Your task to perform on an android device: make emails show in primary in the gmail app Image 0: 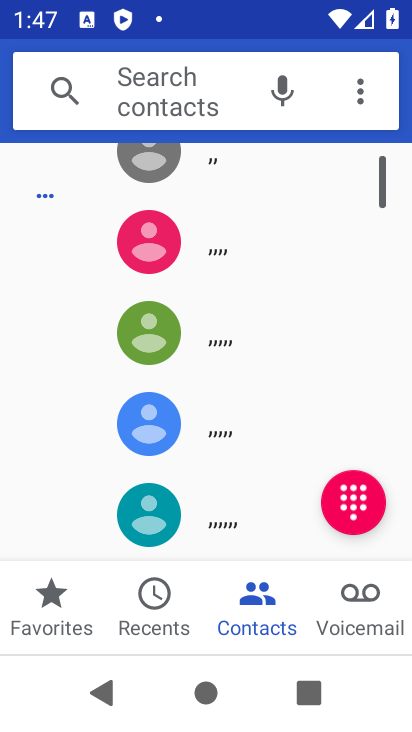
Step 0: press home button
Your task to perform on an android device: make emails show in primary in the gmail app Image 1: 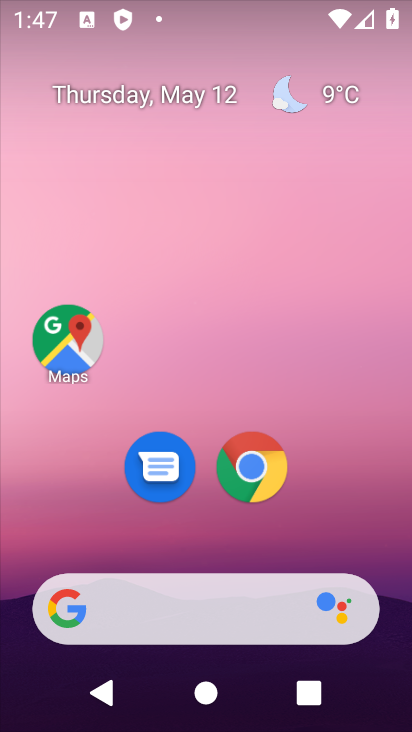
Step 1: drag from (252, 497) to (263, 248)
Your task to perform on an android device: make emails show in primary in the gmail app Image 2: 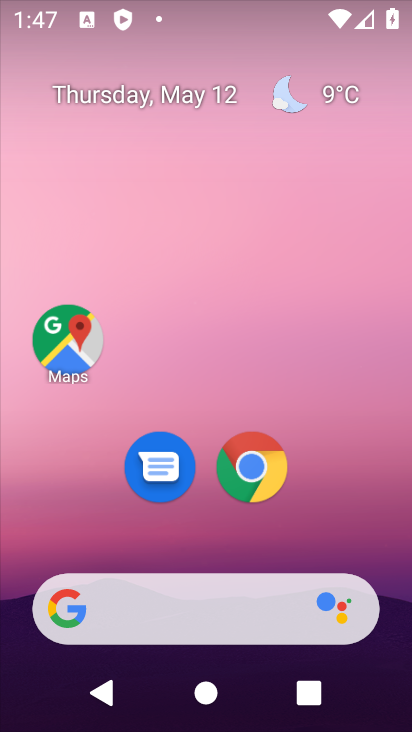
Step 2: drag from (302, 560) to (274, 164)
Your task to perform on an android device: make emails show in primary in the gmail app Image 3: 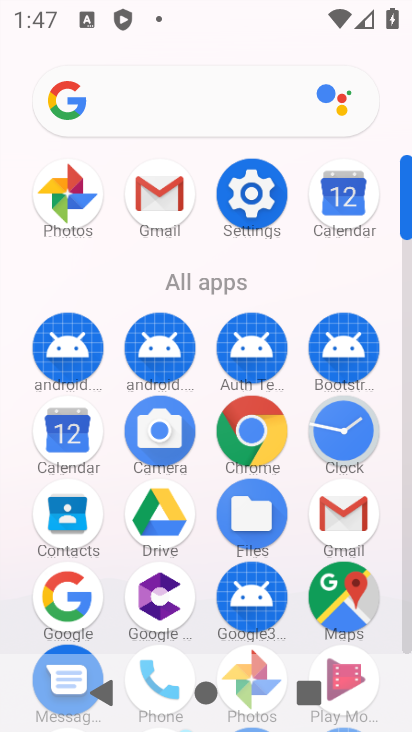
Step 3: click (154, 195)
Your task to perform on an android device: make emails show in primary in the gmail app Image 4: 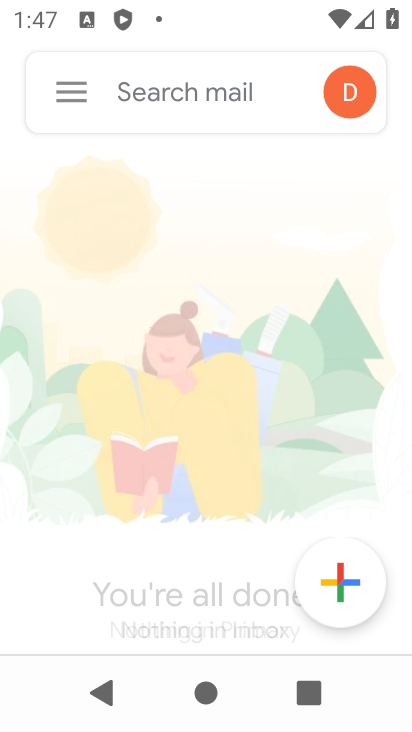
Step 4: click (71, 87)
Your task to perform on an android device: make emails show in primary in the gmail app Image 5: 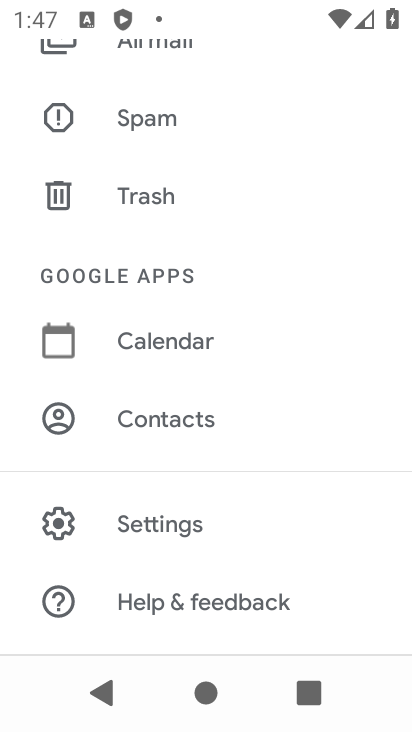
Step 5: click (148, 527)
Your task to perform on an android device: make emails show in primary in the gmail app Image 6: 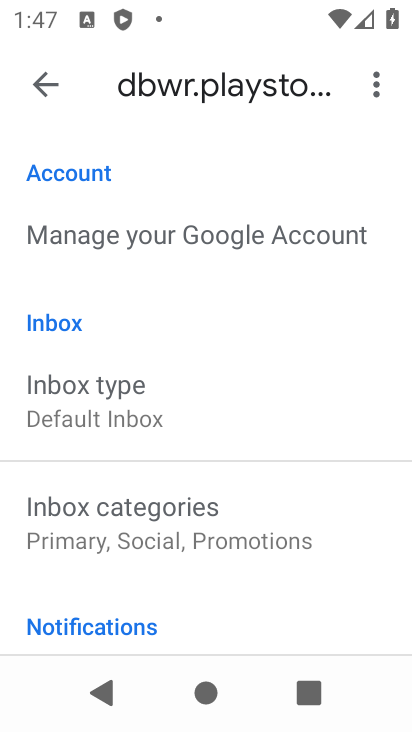
Step 6: click (163, 546)
Your task to perform on an android device: make emails show in primary in the gmail app Image 7: 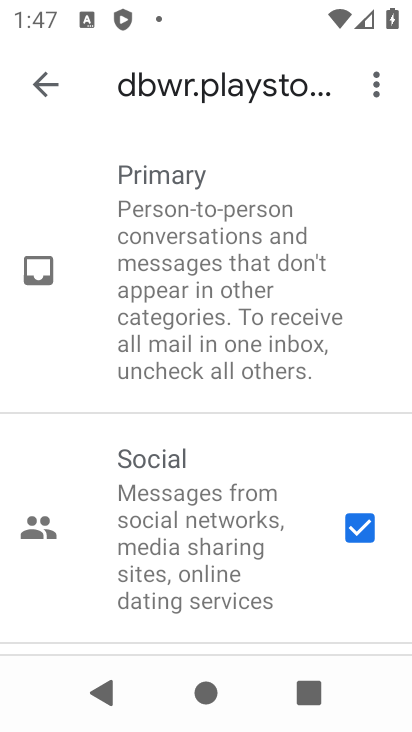
Step 7: click (355, 526)
Your task to perform on an android device: make emails show in primary in the gmail app Image 8: 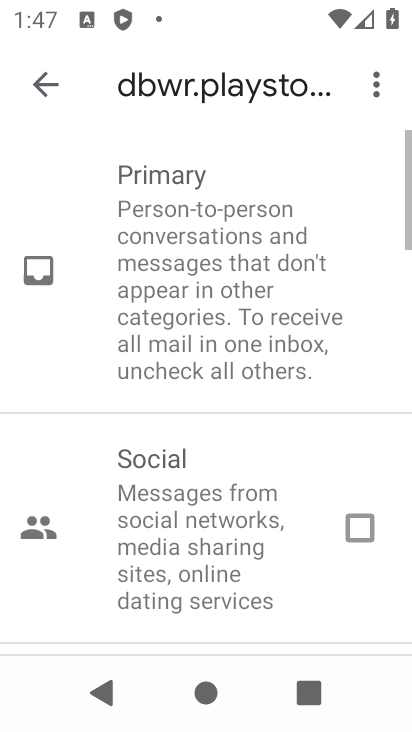
Step 8: drag from (292, 522) to (335, 191)
Your task to perform on an android device: make emails show in primary in the gmail app Image 9: 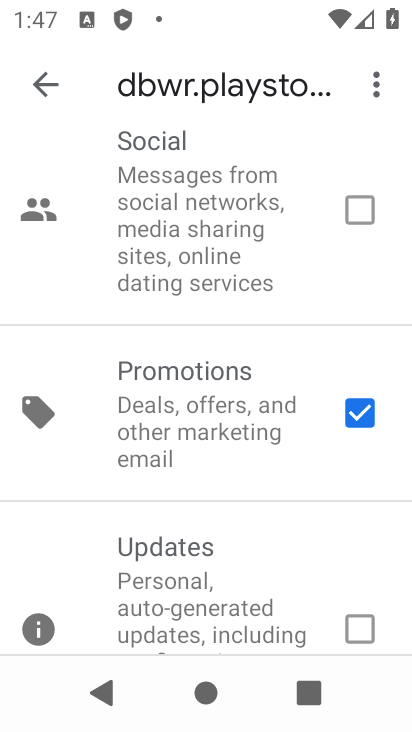
Step 9: click (355, 409)
Your task to perform on an android device: make emails show in primary in the gmail app Image 10: 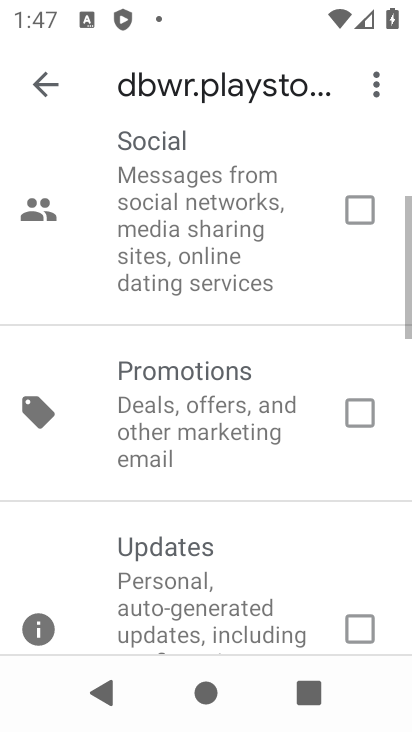
Step 10: drag from (288, 525) to (293, 231)
Your task to perform on an android device: make emails show in primary in the gmail app Image 11: 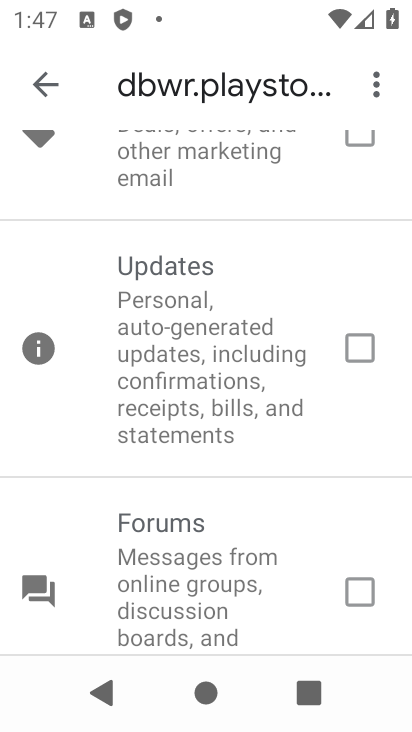
Step 11: drag from (259, 568) to (274, 207)
Your task to perform on an android device: make emails show in primary in the gmail app Image 12: 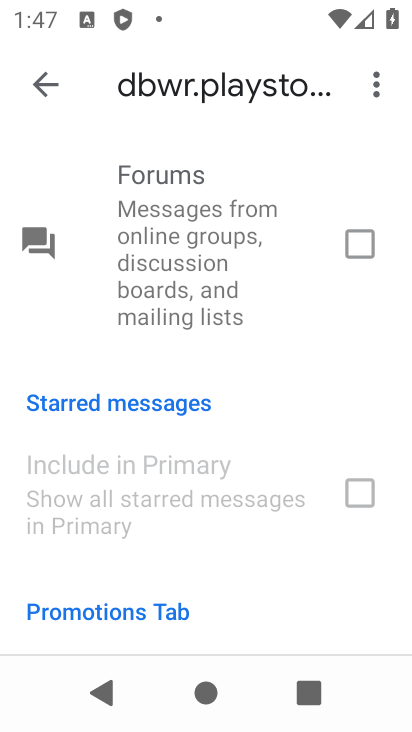
Step 12: click (359, 494)
Your task to perform on an android device: make emails show in primary in the gmail app Image 13: 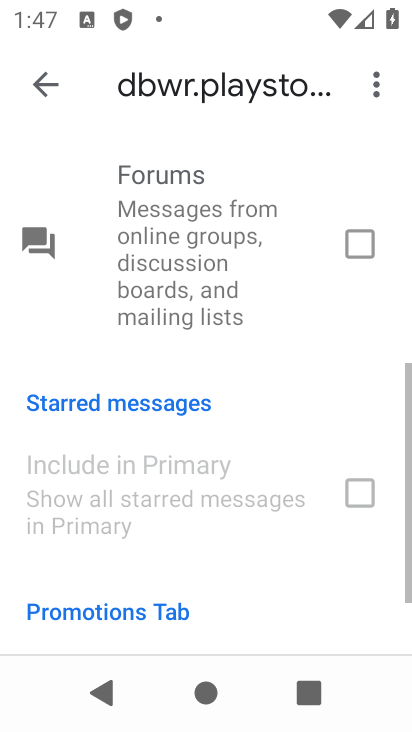
Step 13: task complete